Your task to perform on an android device: open app "Chime – Mobile Banking" Image 0: 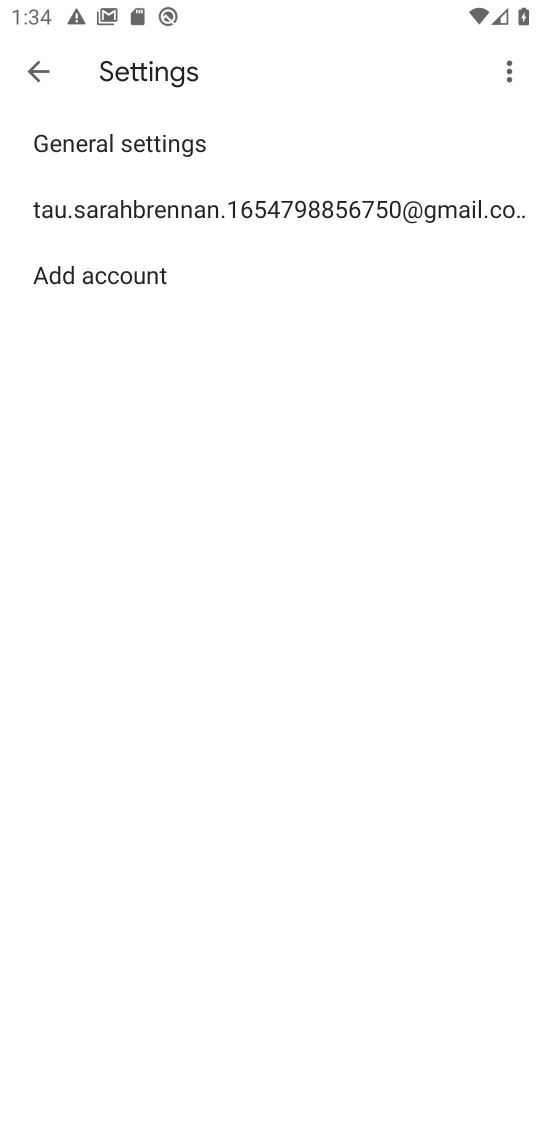
Step 0: press home button
Your task to perform on an android device: open app "Chime – Mobile Banking" Image 1: 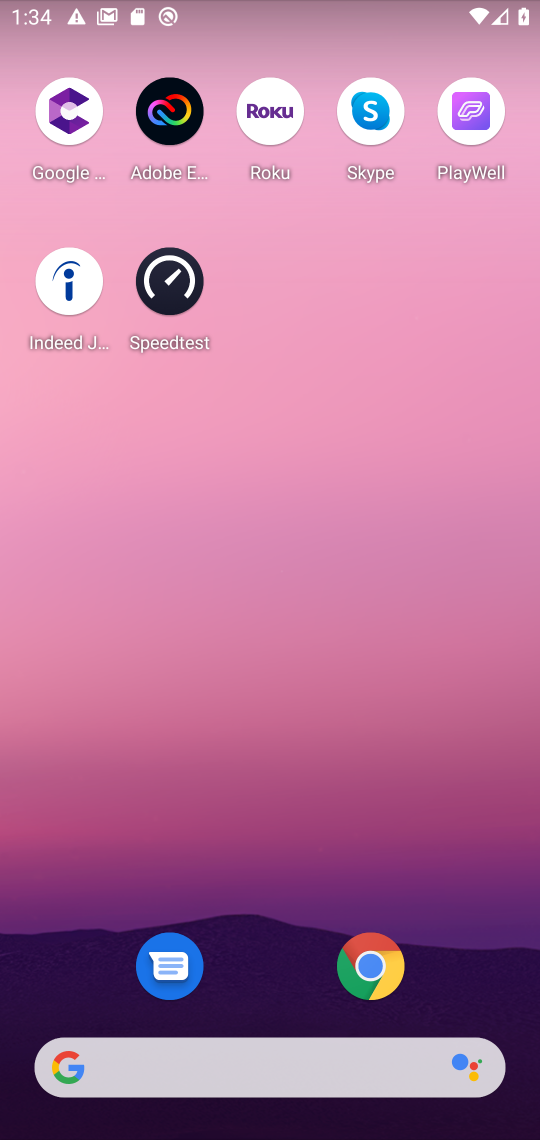
Step 1: drag from (280, 1006) to (71, 181)
Your task to perform on an android device: open app "Chime – Mobile Banking" Image 2: 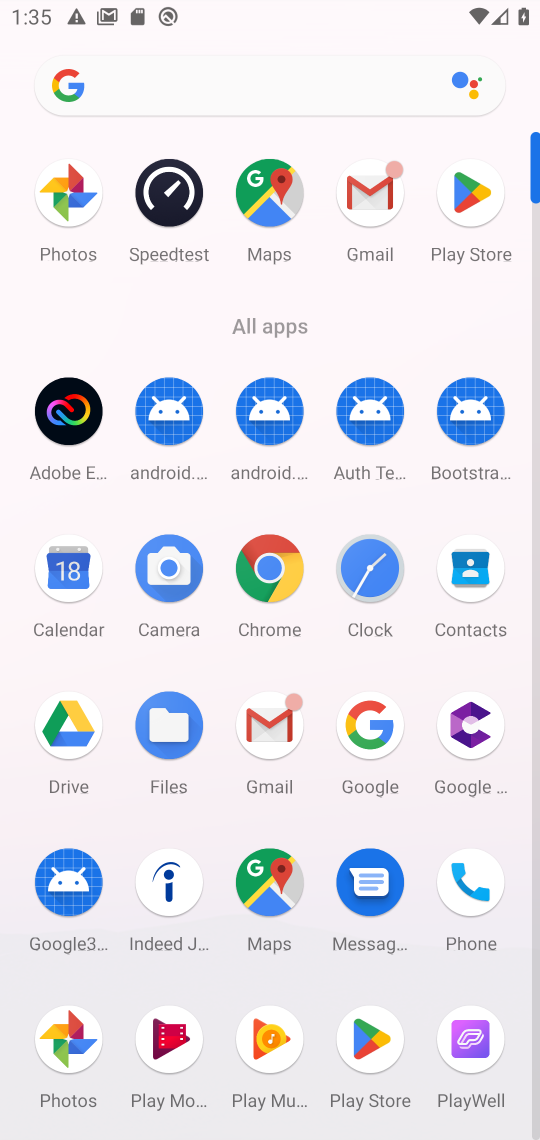
Step 2: click (447, 212)
Your task to perform on an android device: open app "Chime – Mobile Banking" Image 3: 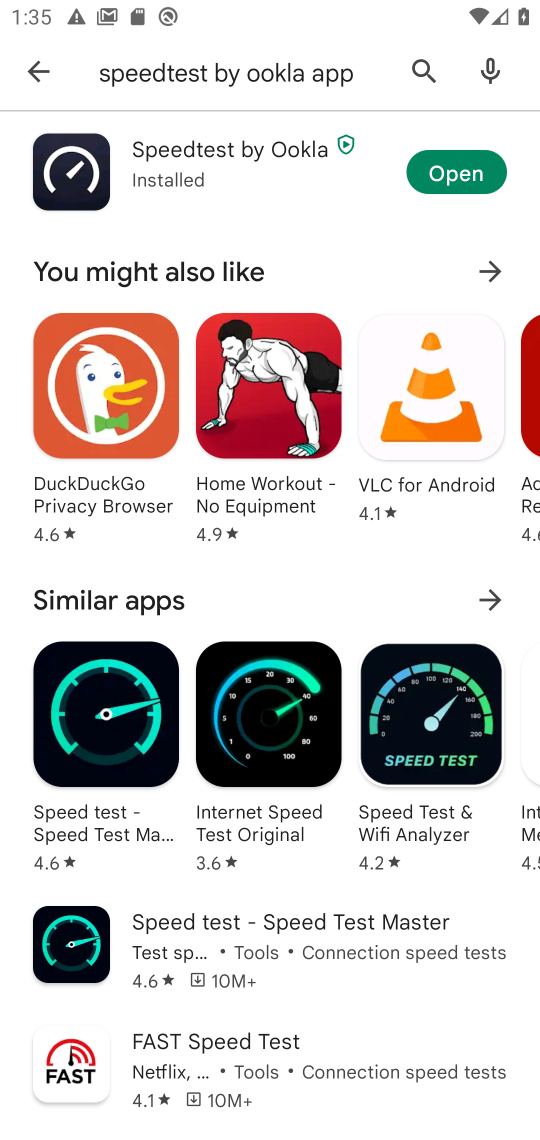
Step 3: click (428, 68)
Your task to perform on an android device: open app "Chime – Mobile Banking" Image 4: 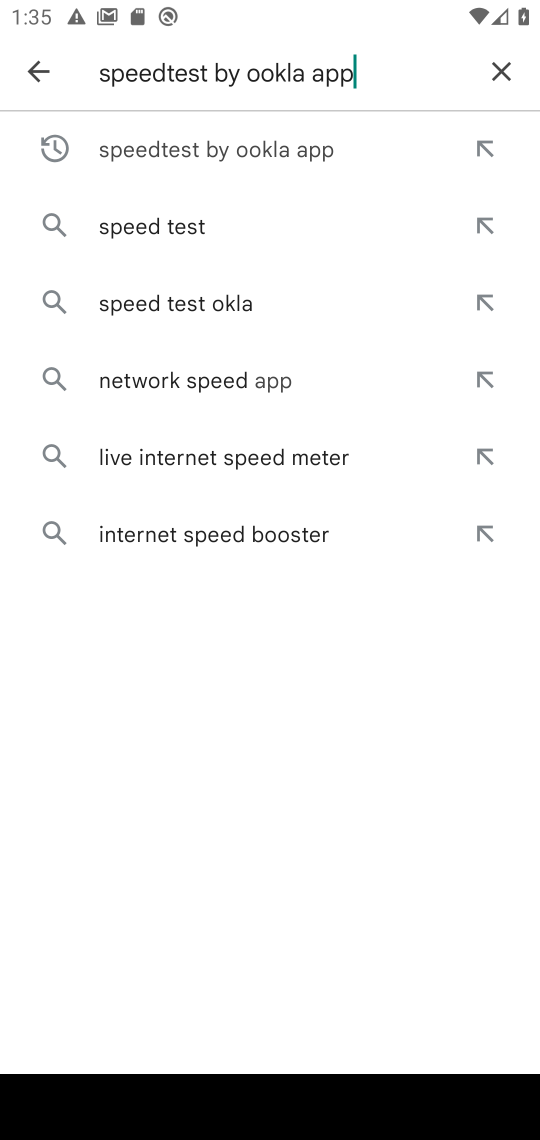
Step 4: click (508, 62)
Your task to perform on an android device: open app "Chime – Mobile Banking" Image 5: 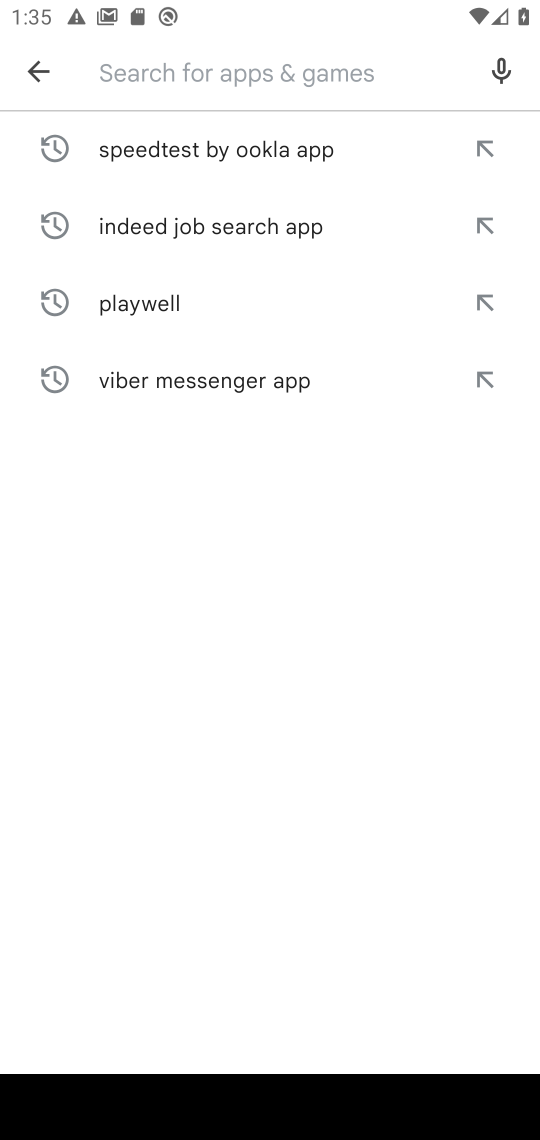
Step 5: type "Chime"
Your task to perform on an android device: open app "Chime – Mobile Banking" Image 6: 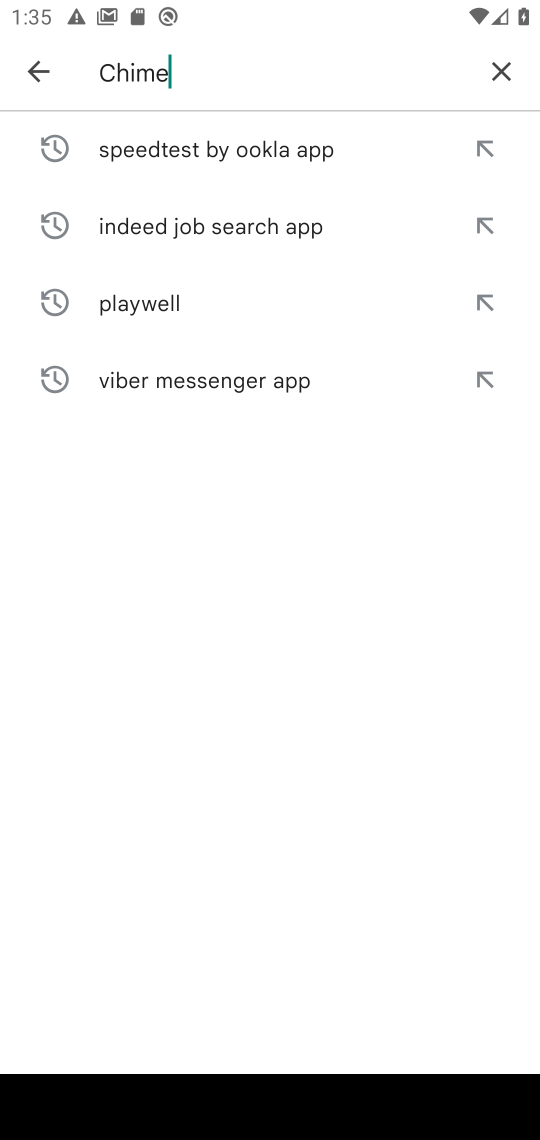
Step 6: type ""
Your task to perform on an android device: open app "Chime – Mobile Banking" Image 7: 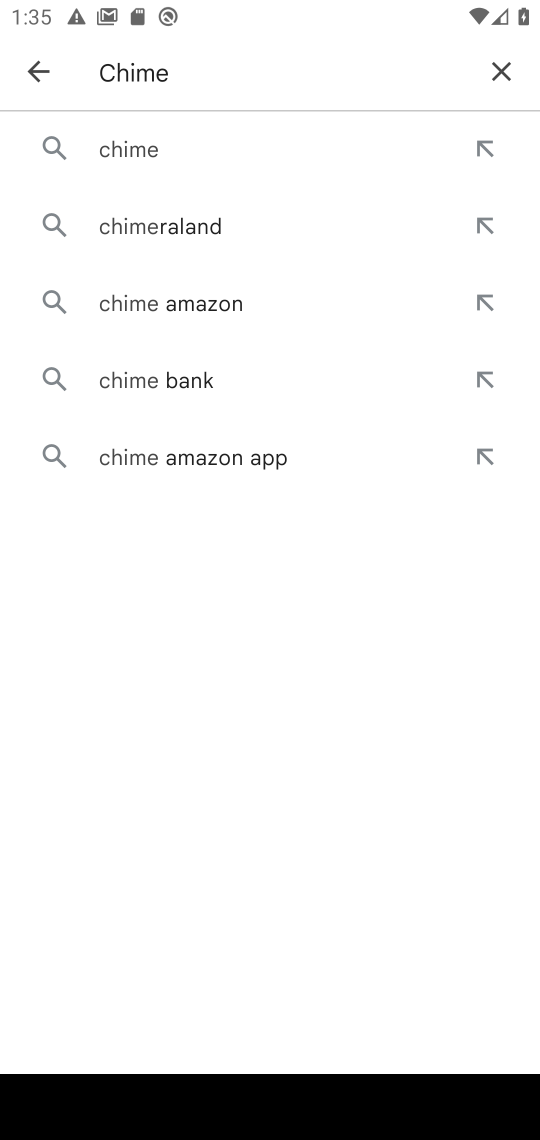
Step 7: click (121, 135)
Your task to perform on an android device: open app "Chime – Mobile Banking" Image 8: 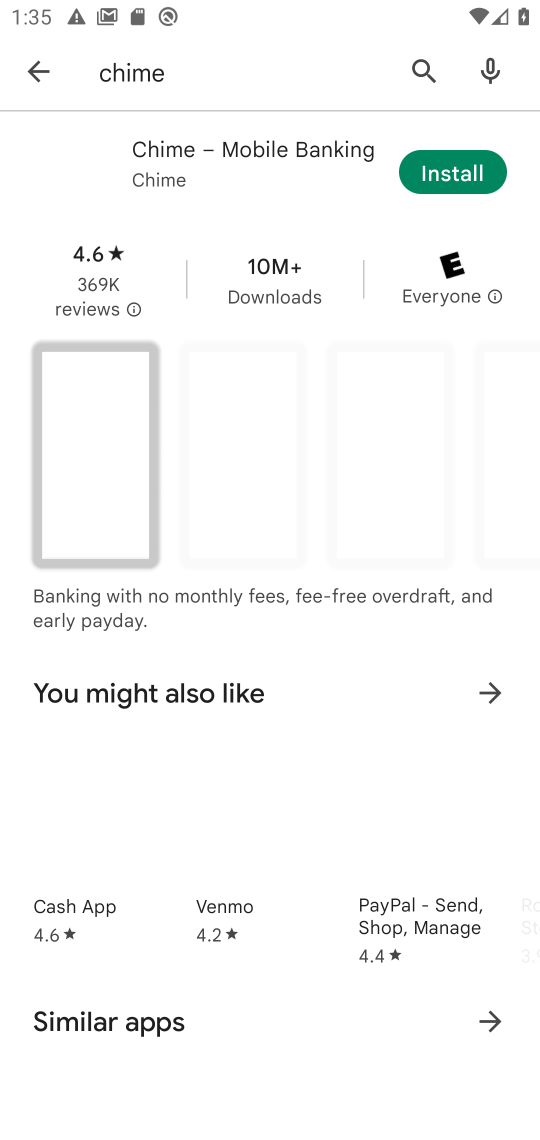
Step 8: task complete